Your task to perform on an android device: Open Yahoo.com Image 0: 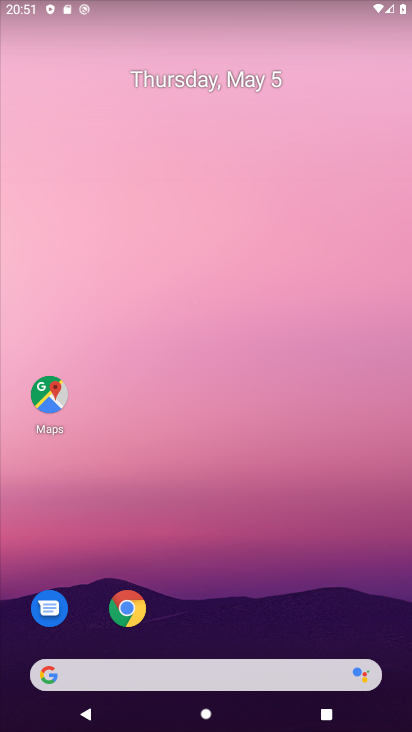
Step 0: drag from (238, 643) to (272, 42)
Your task to perform on an android device: Open Yahoo.com Image 1: 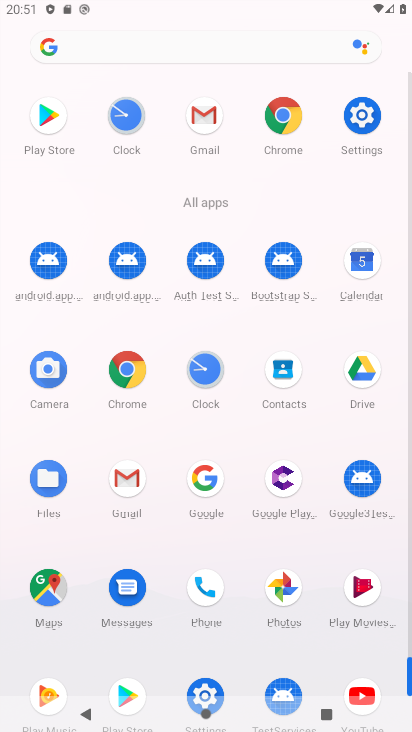
Step 1: click (130, 368)
Your task to perform on an android device: Open Yahoo.com Image 2: 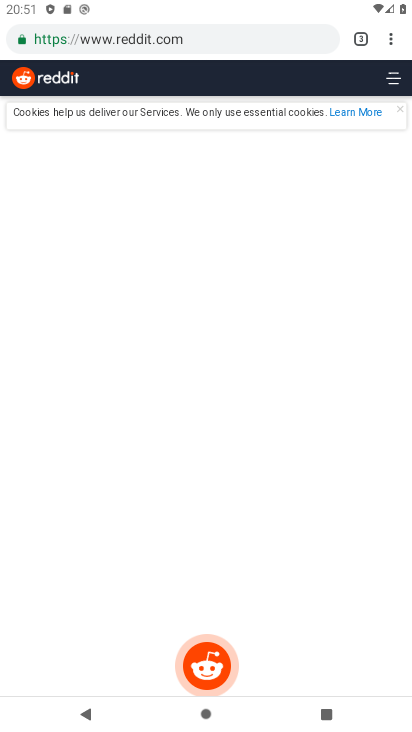
Step 2: click (313, 35)
Your task to perform on an android device: Open Yahoo.com Image 3: 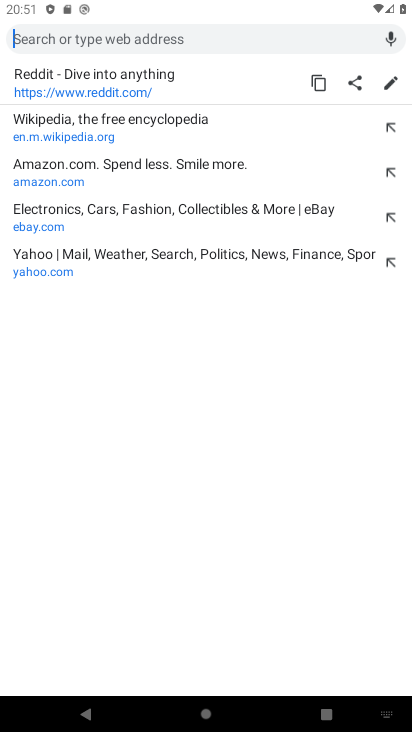
Step 3: type "yahoo.com"
Your task to perform on an android device: Open Yahoo.com Image 4: 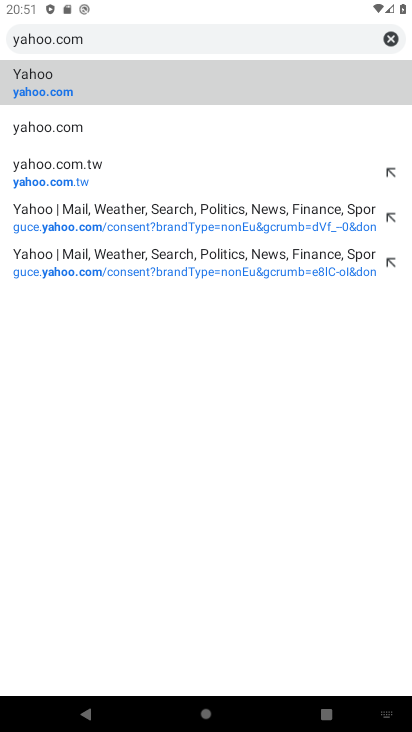
Step 4: click (337, 89)
Your task to perform on an android device: Open Yahoo.com Image 5: 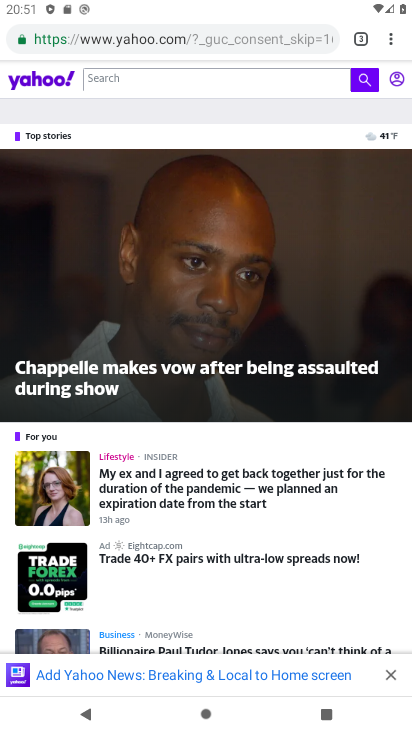
Step 5: task complete